Your task to perform on an android device: turn on translation in the chrome app Image 0: 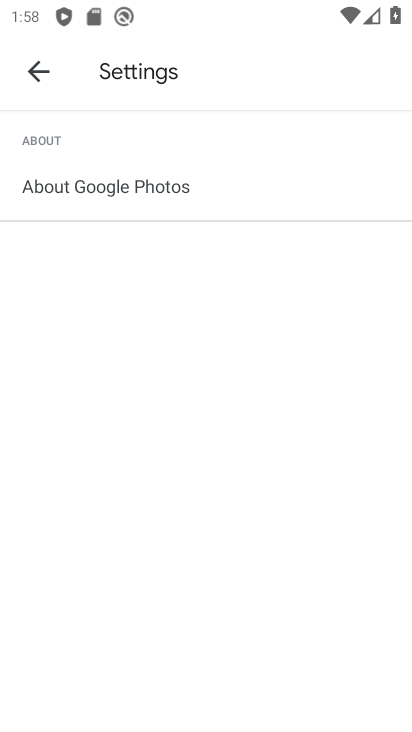
Step 0: click (397, 557)
Your task to perform on an android device: turn on translation in the chrome app Image 1: 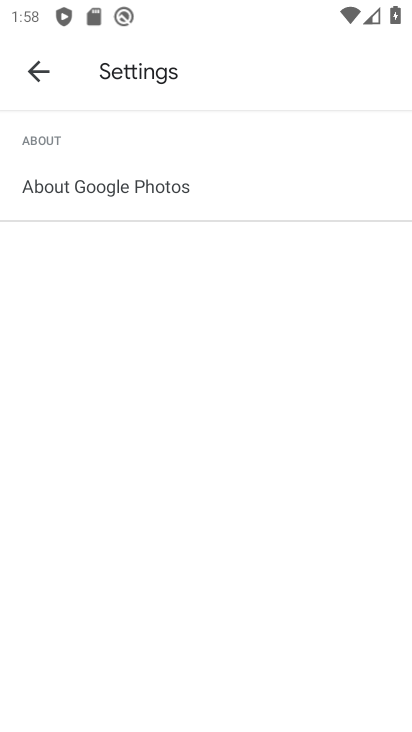
Step 1: press home button
Your task to perform on an android device: turn on translation in the chrome app Image 2: 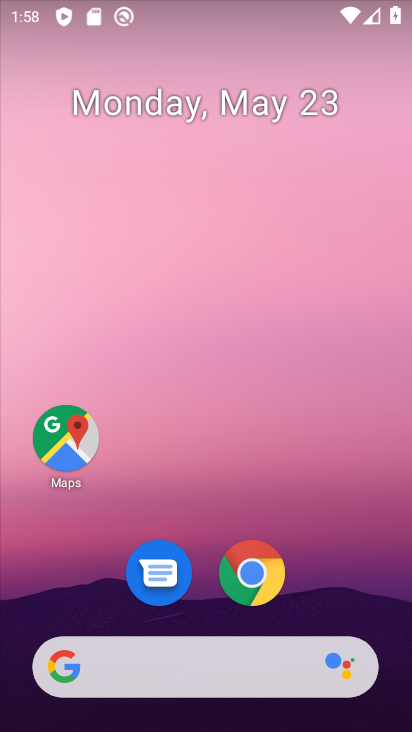
Step 2: drag from (331, 590) to (332, 80)
Your task to perform on an android device: turn on translation in the chrome app Image 3: 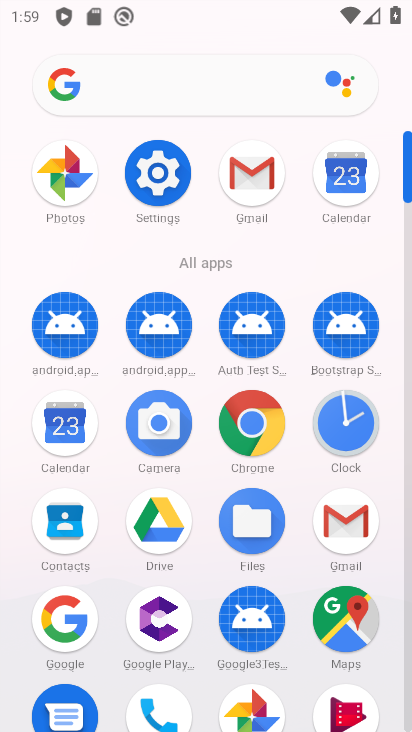
Step 3: click (243, 422)
Your task to perform on an android device: turn on translation in the chrome app Image 4: 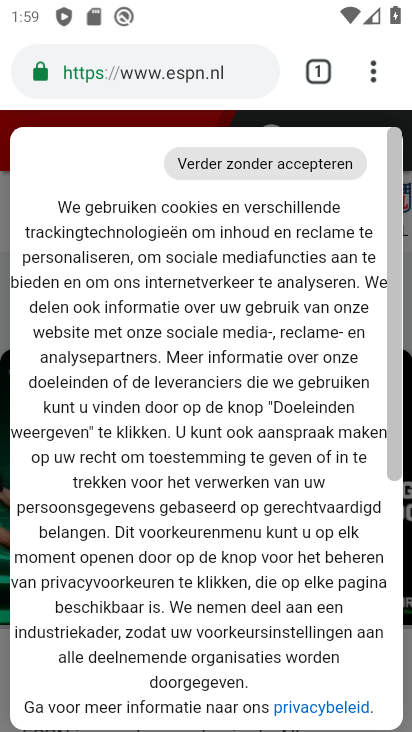
Step 4: drag from (361, 68) to (186, 572)
Your task to perform on an android device: turn on translation in the chrome app Image 5: 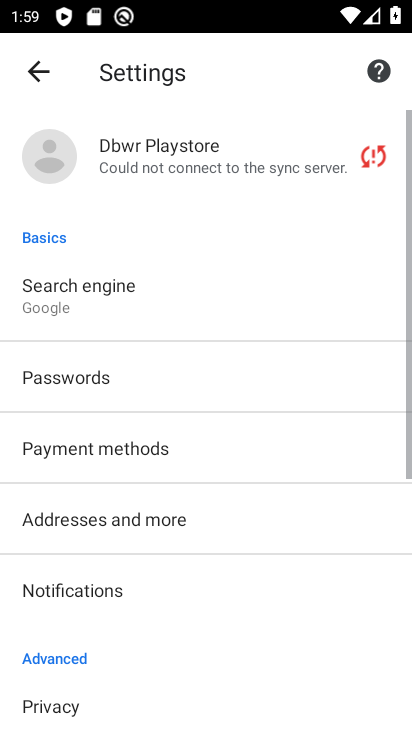
Step 5: drag from (273, 516) to (288, 15)
Your task to perform on an android device: turn on translation in the chrome app Image 6: 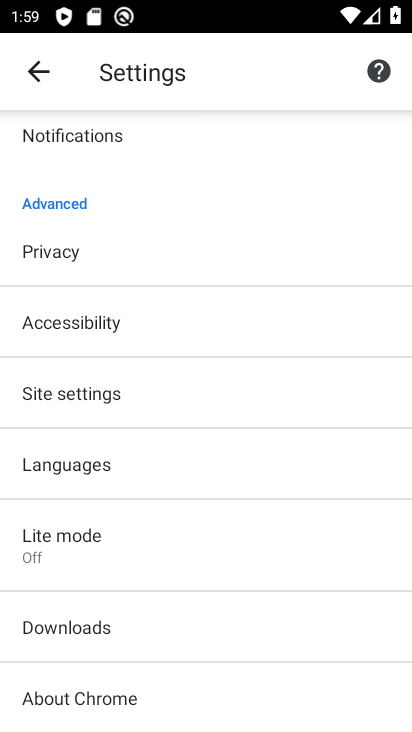
Step 6: drag from (173, 667) to (196, 431)
Your task to perform on an android device: turn on translation in the chrome app Image 7: 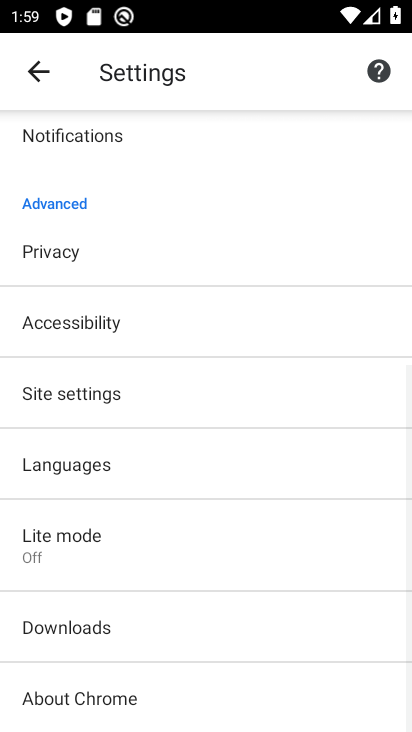
Step 7: click (104, 445)
Your task to perform on an android device: turn on translation in the chrome app Image 8: 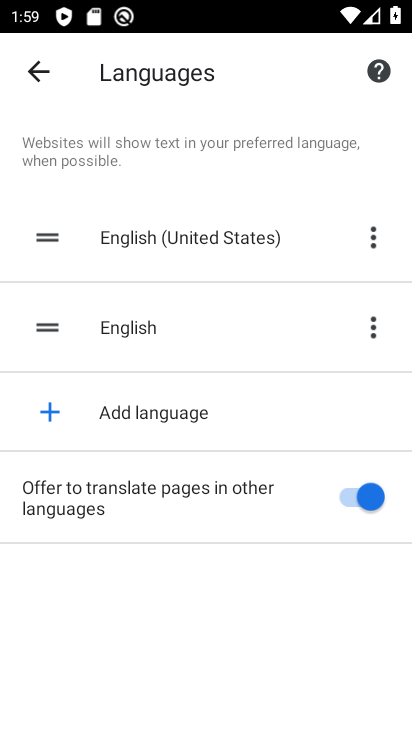
Step 8: task complete